Your task to perform on an android device: turn off airplane mode Image 0: 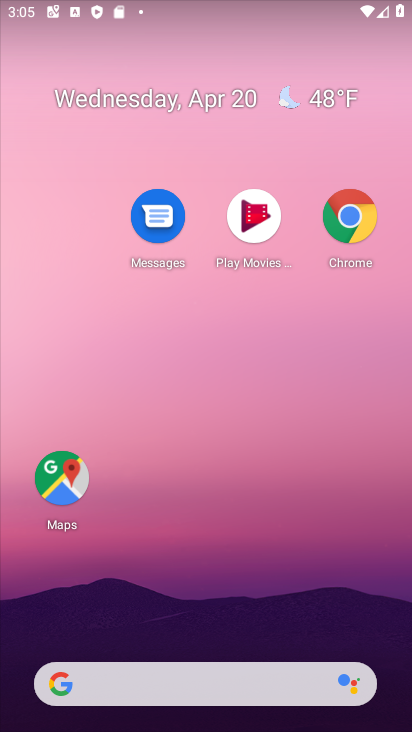
Step 0: drag from (299, 609) to (290, 3)
Your task to perform on an android device: turn off airplane mode Image 1: 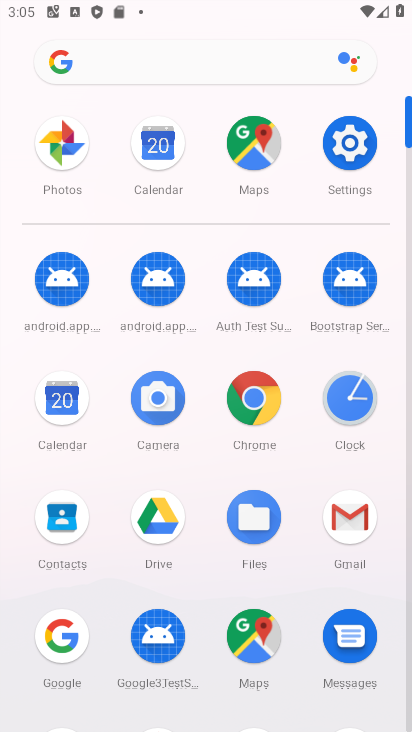
Step 1: click (359, 166)
Your task to perform on an android device: turn off airplane mode Image 2: 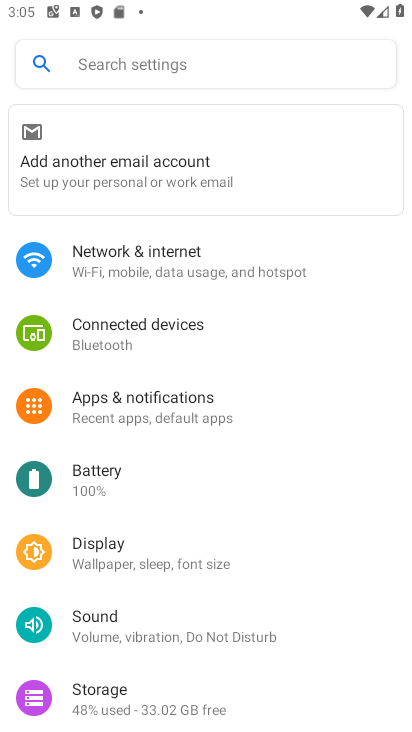
Step 2: click (179, 274)
Your task to perform on an android device: turn off airplane mode Image 3: 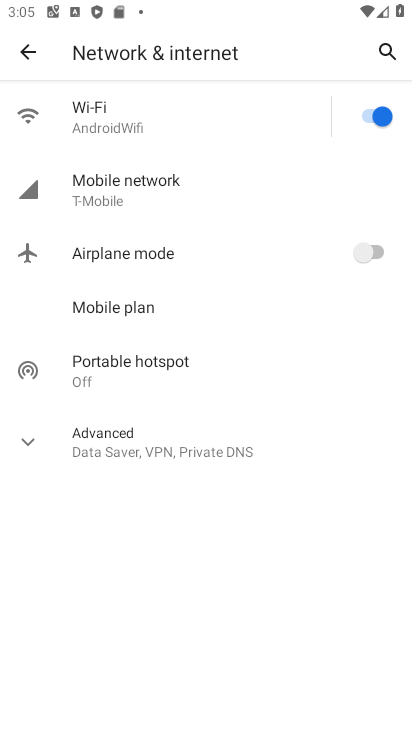
Step 3: task complete